Your task to perform on an android device: Open calendar and show me the first week of next month Image 0: 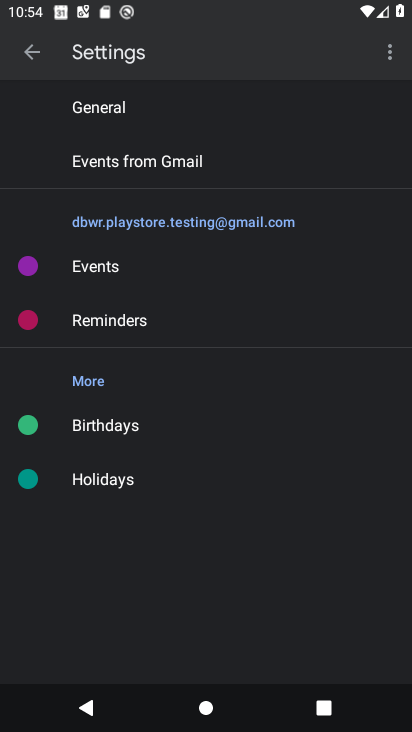
Step 0: press home button
Your task to perform on an android device: Open calendar and show me the first week of next month Image 1: 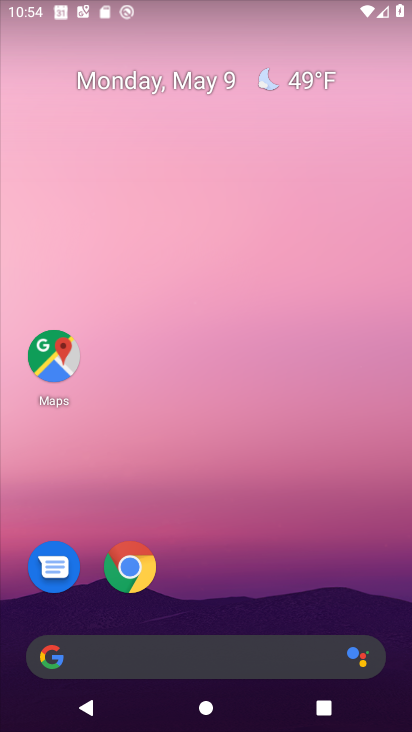
Step 1: drag from (220, 622) to (154, 208)
Your task to perform on an android device: Open calendar and show me the first week of next month Image 2: 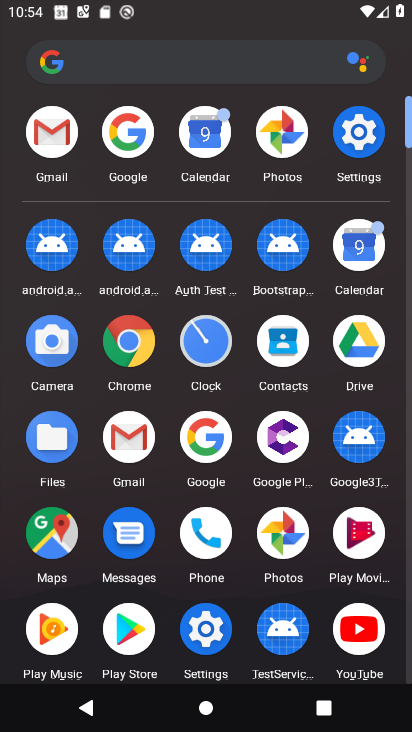
Step 2: click (343, 248)
Your task to perform on an android device: Open calendar and show me the first week of next month Image 3: 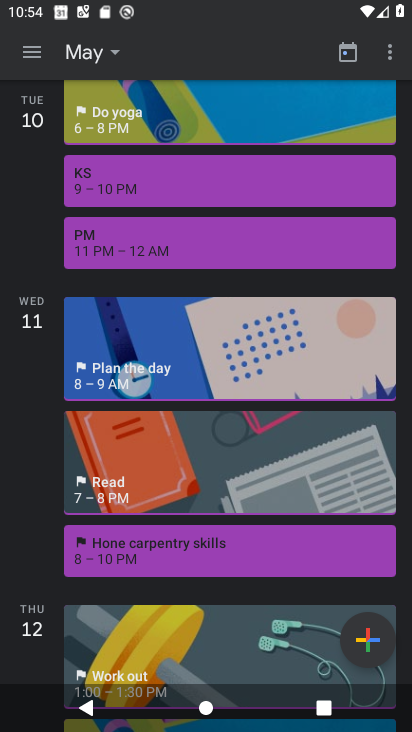
Step 3: click (82, 43)
Your task to perform on an android device: Open calendar and show me the first week of next month Image 4: 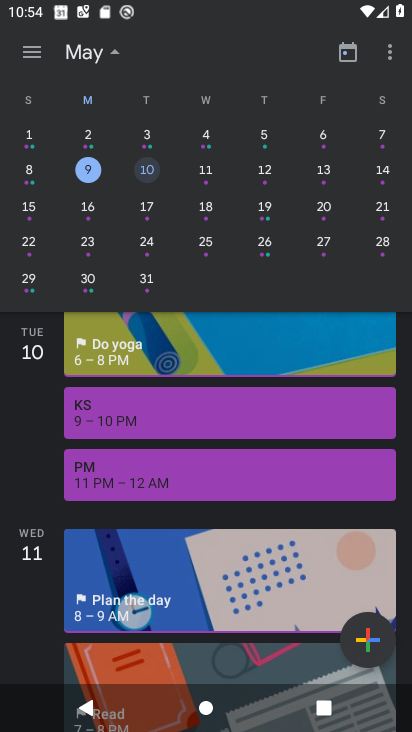
Step 4: drag from (349, 228) to (9, 280)
Your task to perform on an android device: Open calendar and show me the first week of next month Image 5: 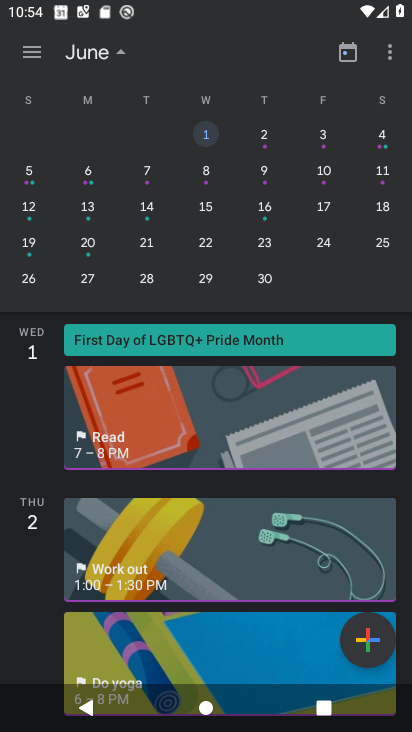
Step 5: click (210, 136)
Your task to perform on an android device: Open calendar and show me the first week of next month Image 6: 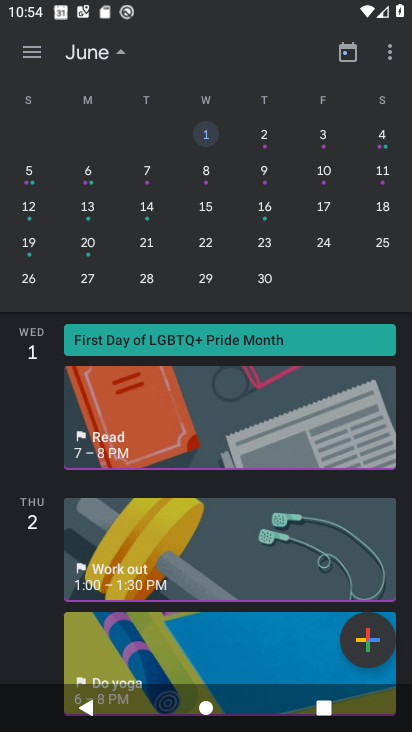
Step 6: task complete